Your task to perform on an android device: set an alarm Image 0: 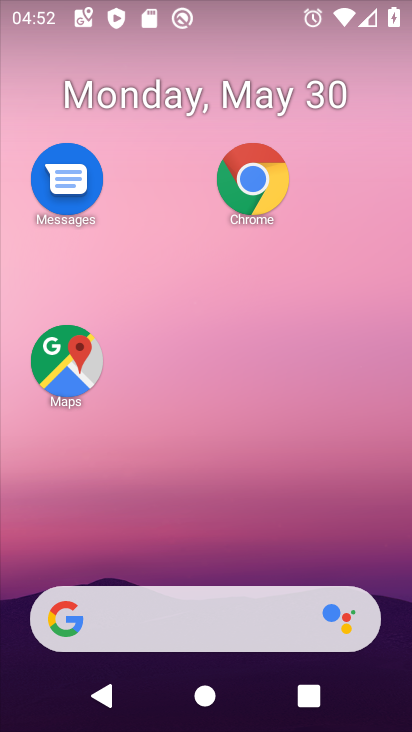
Step 0: drag from (214, 533) to (165, 162)
Your task to perform on an android device: set an alarm Image 1: 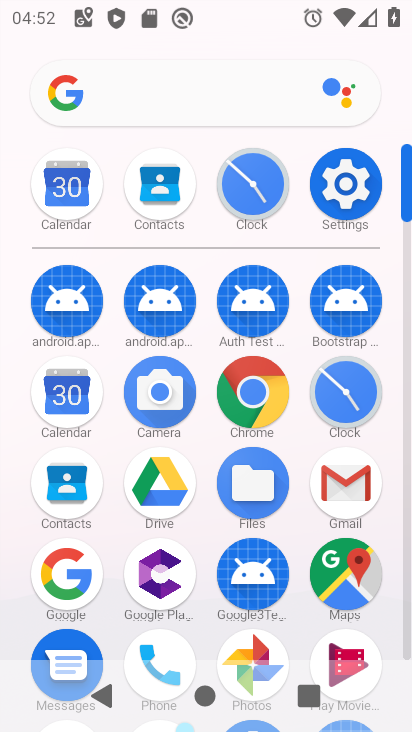
Step 1: click (352, 399)
Your task to perform on an android device: set an alarm Image 2: 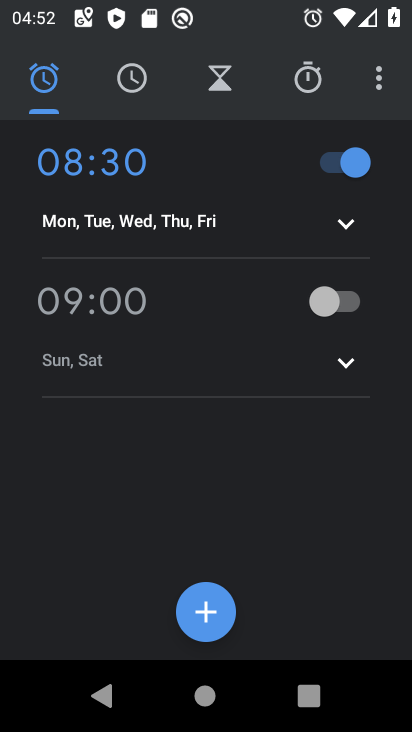
Step 2: click (98, 342)
Your task to perform on an android device: set an alarm Image 3: 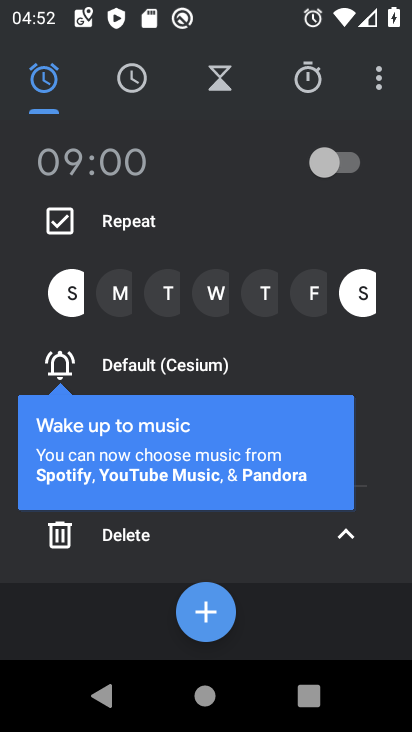
Step 3: click (350, 541)
Your task to perform on an android device: set an alarm Image 4: 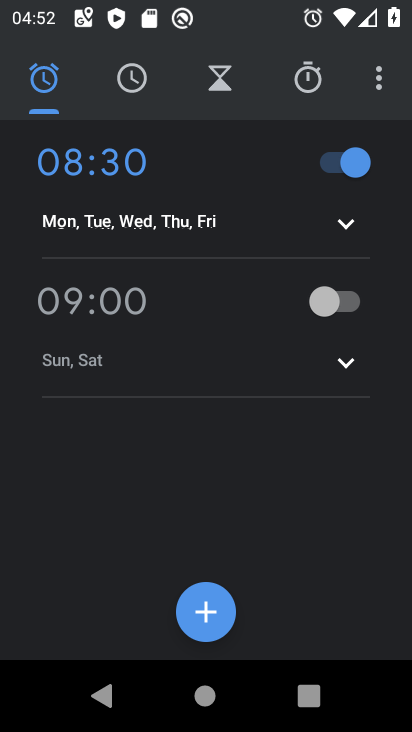
Step 4: click (355, 292)
Your task to perform on an android device: set an alarm Image 5: 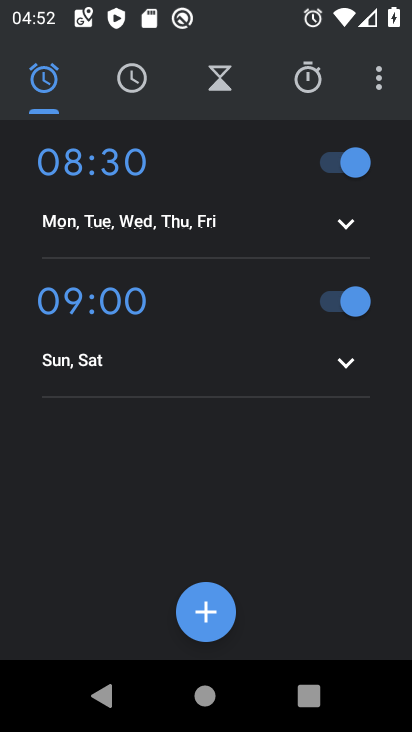
Step 5: task complete